Your task to perform on an android device: Search for "macbook pro 15 inch" on bestbuy, select the first entry, add it to the cart, then select checkout. Image 0: 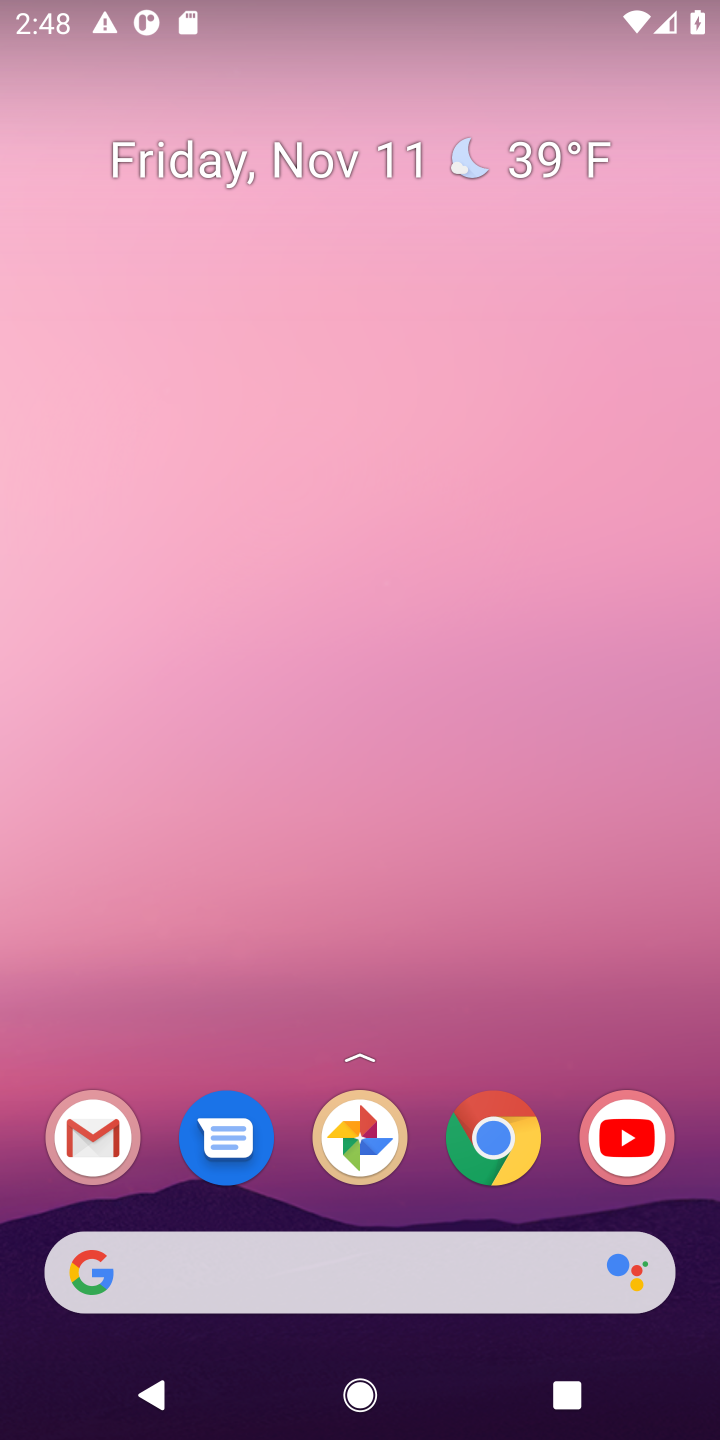
Step 0: click (493, 1144)
Your task to perform on an android device: Search for "macbook pro 15 inch" on bestbuy, select the first entry, add it to the cart, then select checkout. Image 1: 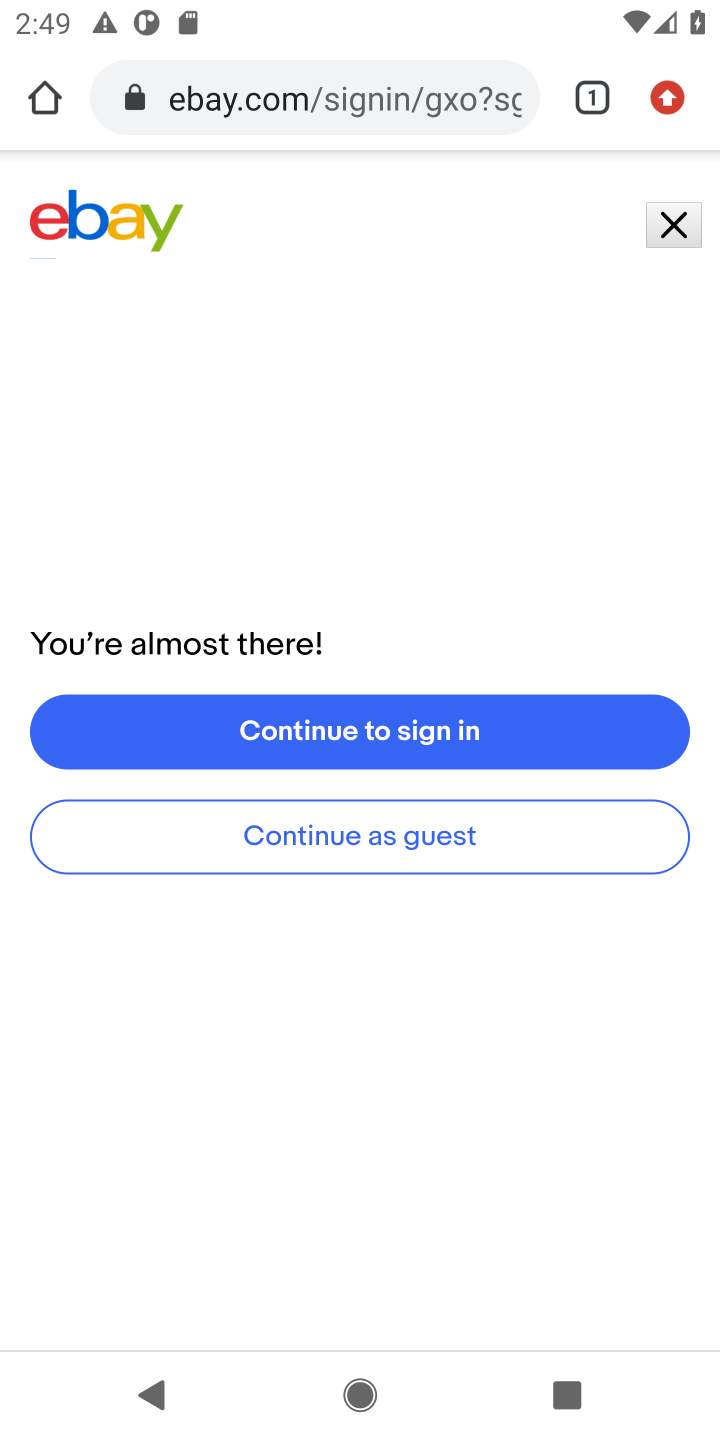
Step 1: click (444, 94)
Your task to perform on an android device: Search for "macbook pro 15 inch" on bestbuy, select the first entry, add it to the cart, then select checkout. Image 2: 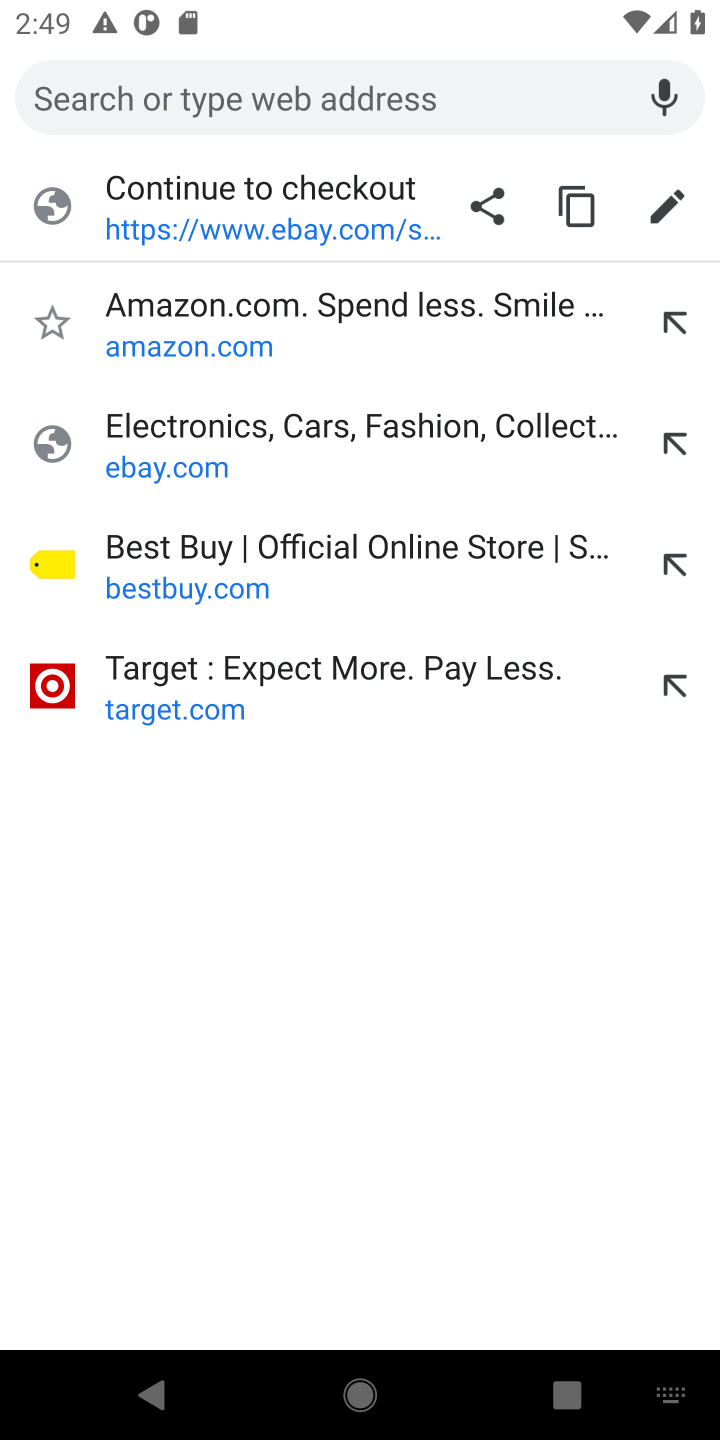
Step 2: click (399, 553)
Your task to perform on an android device: Search for "macbook pro 15 inch" on bestbuy, select the first entry, add it to the cart, then select checkout. Image 3: 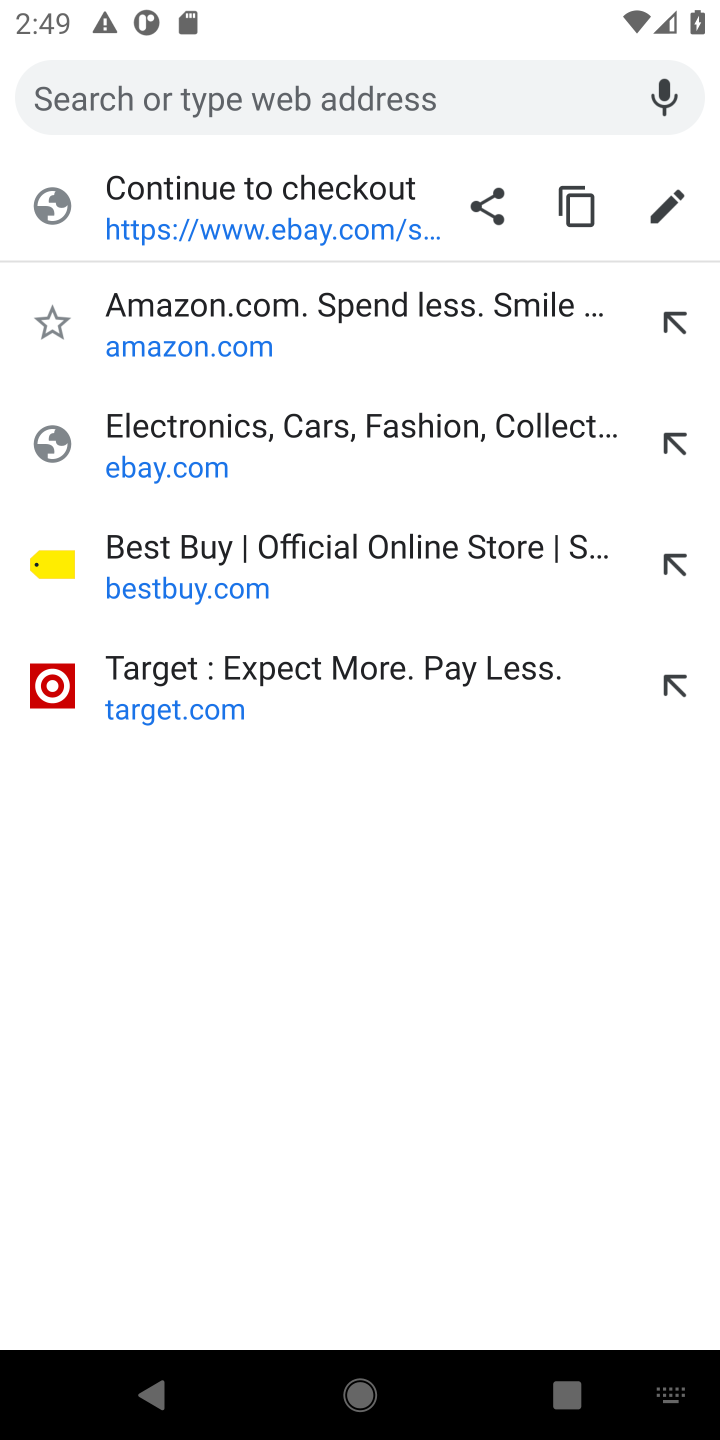
Step 3: type "macbook pro 15 inch"
Your task to perform on an android device: Search for "macbook pro 15 inch" on bestbuy, select the first entry, add it to the cart, then select checkout. Image 4: 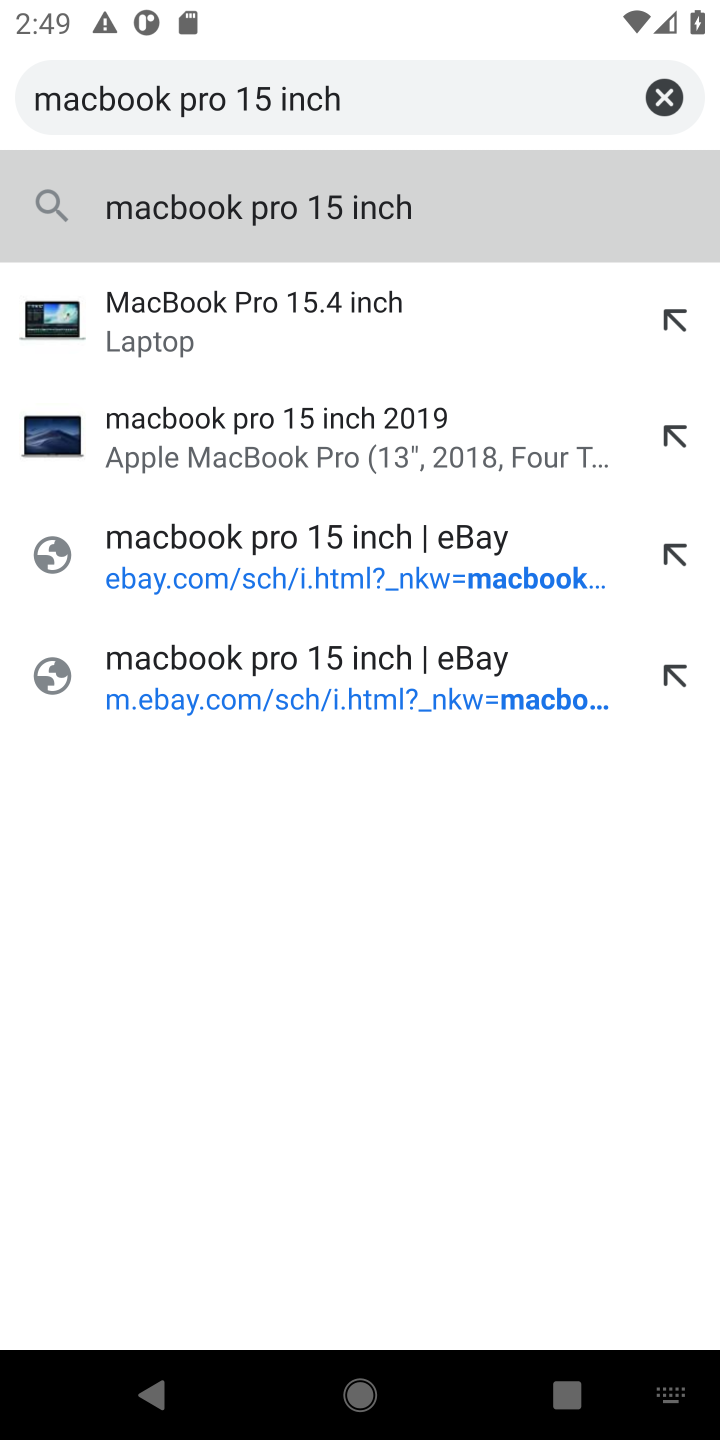
Step 4: press enter
Your task to perform on an android device: Search for "macbook pro 15 inch" on bestbuy, select the first entry, add it to the cart, then select checkout. Image 5: 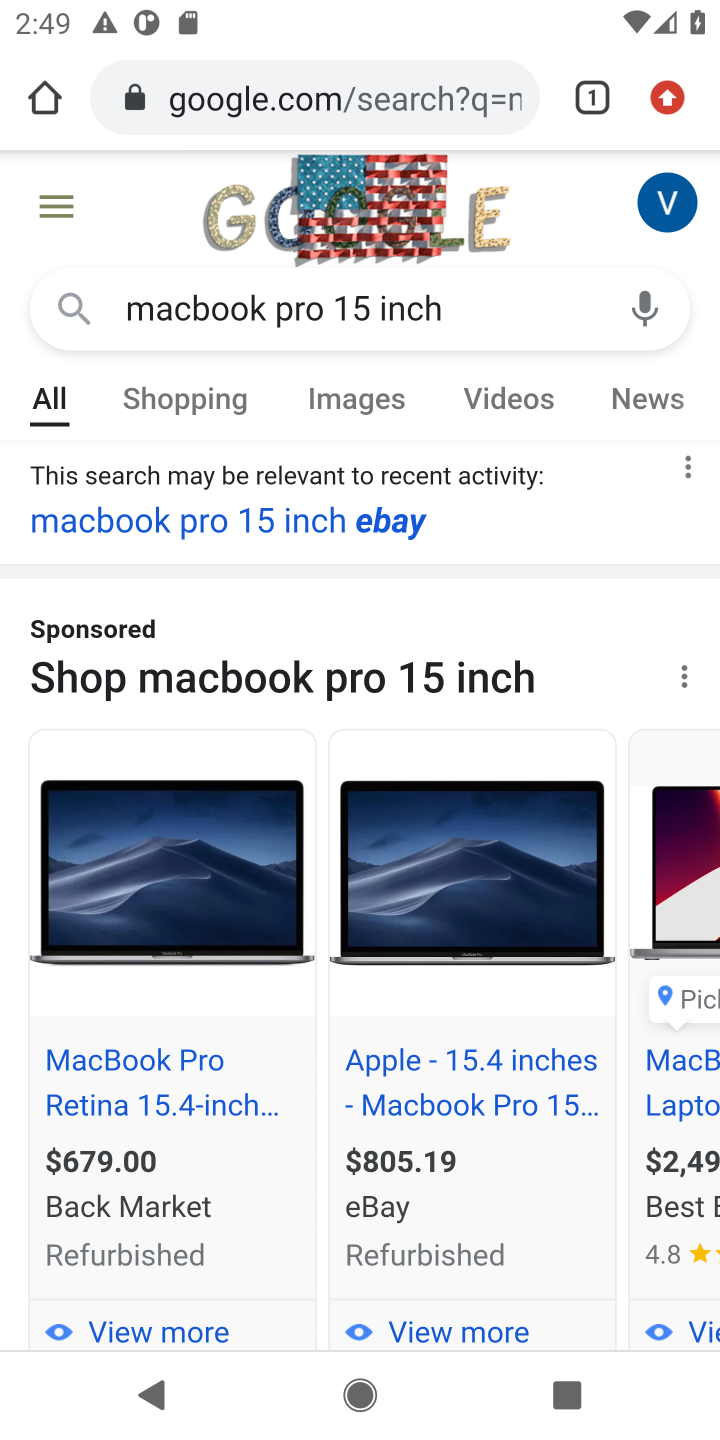
Step 5: click (663, 1204)
Your task to perform on an android device: Search for "macbook pro 15 inch" on bestbuy, select the first entry, add it to the cart, then select checkout. Image 6: 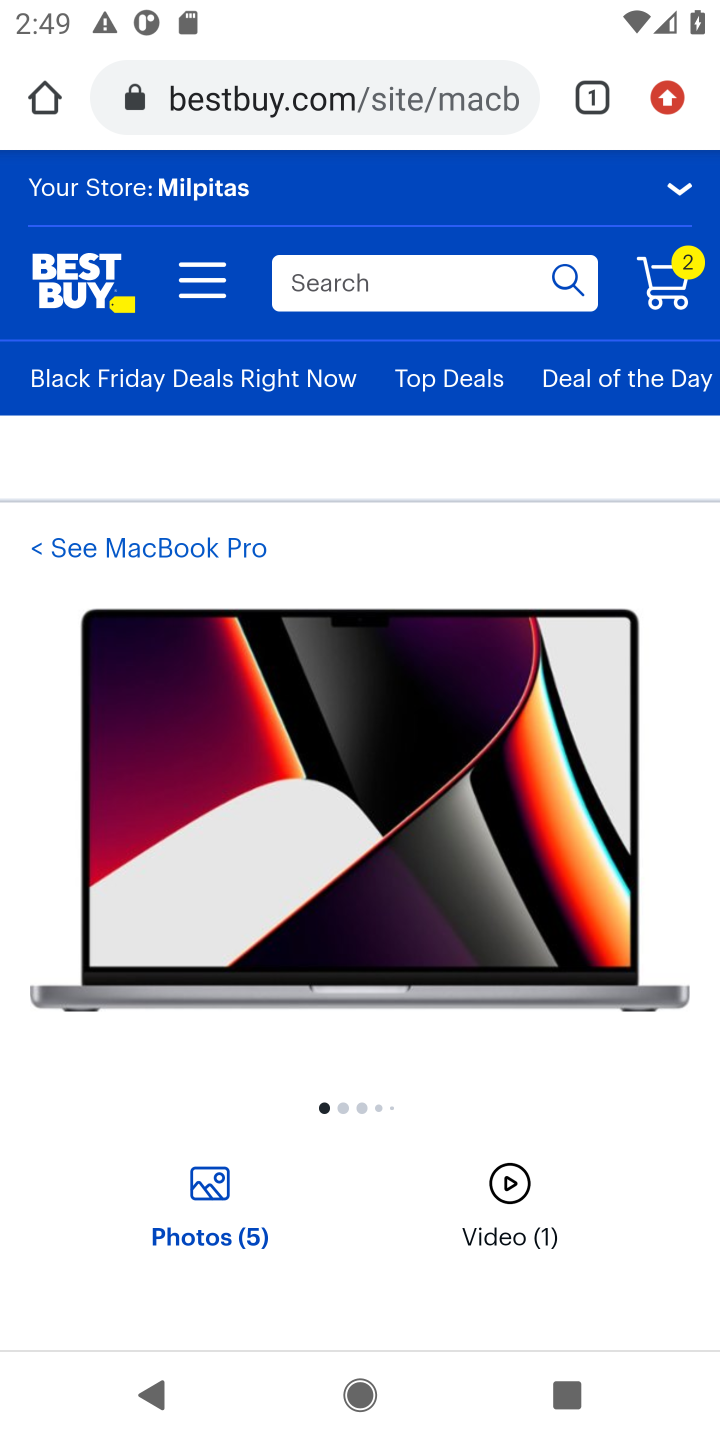
Step 6: drag from (518, 1047) to (590, 511)
Your task to perform on an android device: Search for "macbook pro 15 inch" on bestbuy, select the first entry, add it to the cart, then select checkout. Image 7: 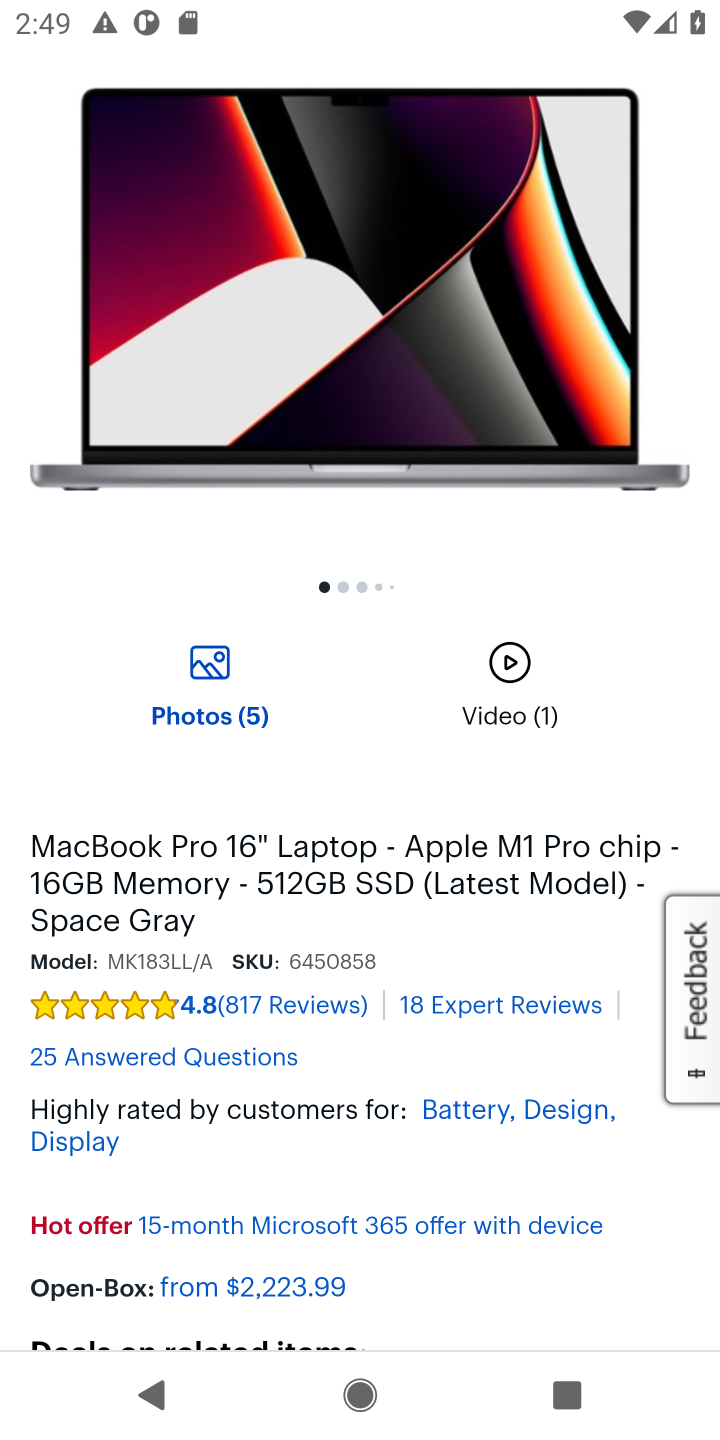
Step 7: drag from (540, 926) to (481, 287)
Your task to perform on an android device: Search for "macbook pro 15 inch" on bestbuy, select the first entry, add it to the cart, then select checkout. Image 8: 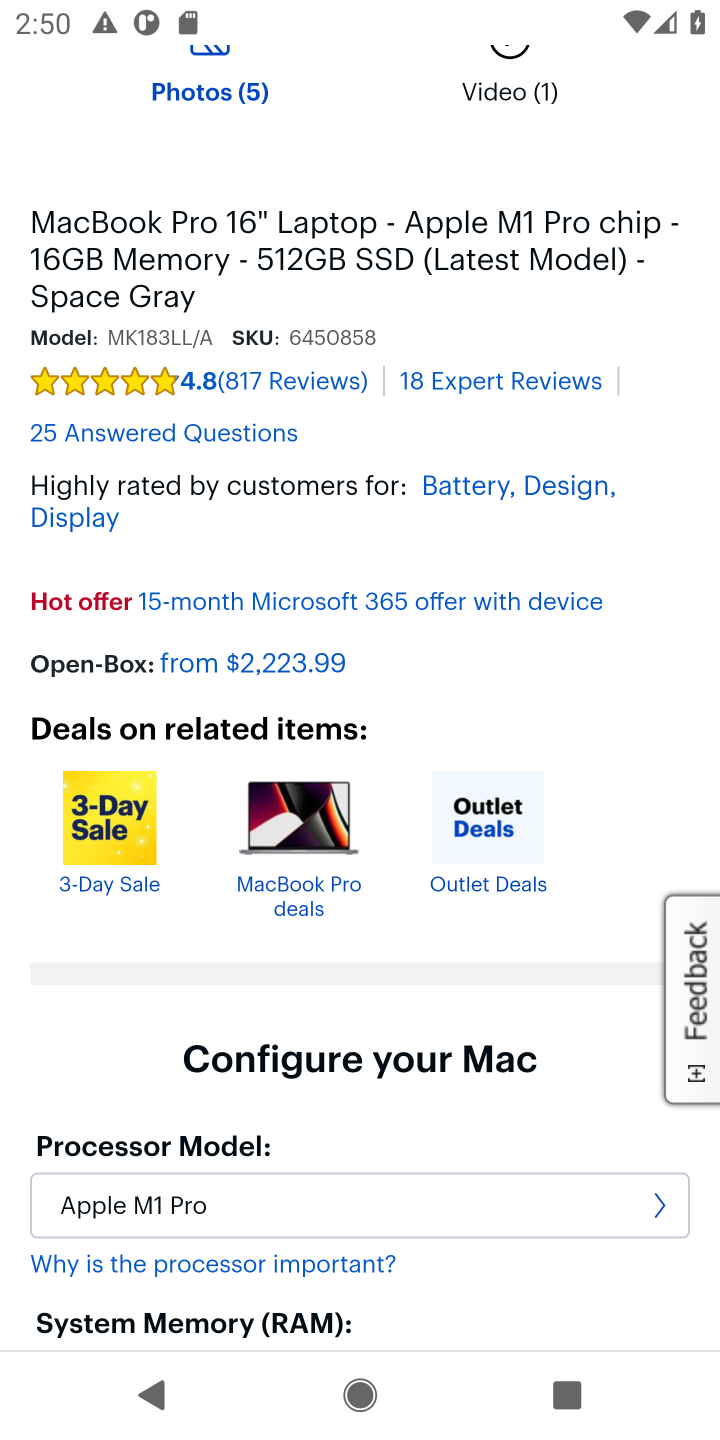
Step 8: drag from (470, 867) to (572, 1115)
Your task to perform on an android device: Search for "macbook pro 15 inch" on bestbuy, select the first entry, add it to the cart, then select checkout. Image 9: 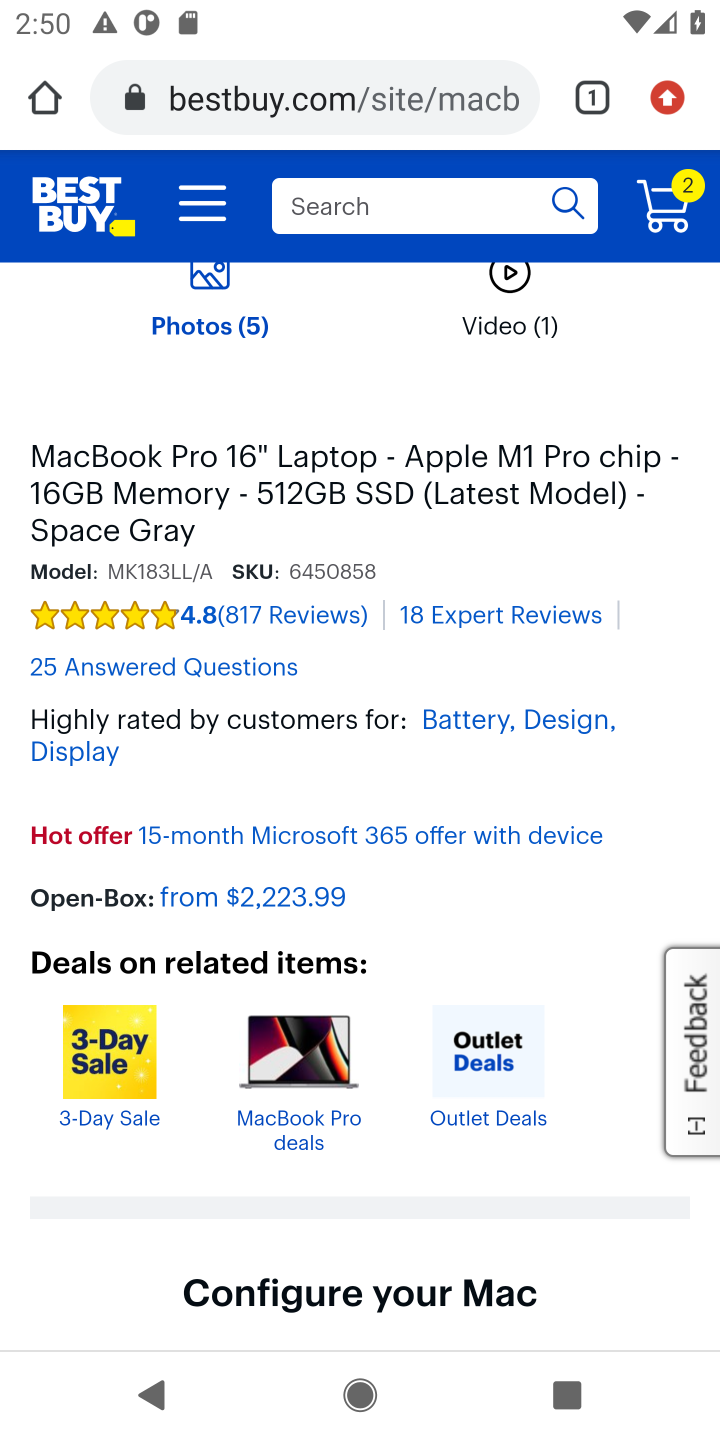
Step 9: drag from (343, 421) to (505, 1032)
Your task to perform on an android device: Search for "macbook pro 15 inch" on bestbuy, select the first entry, add it to the cart, then select checkout. Image 10: 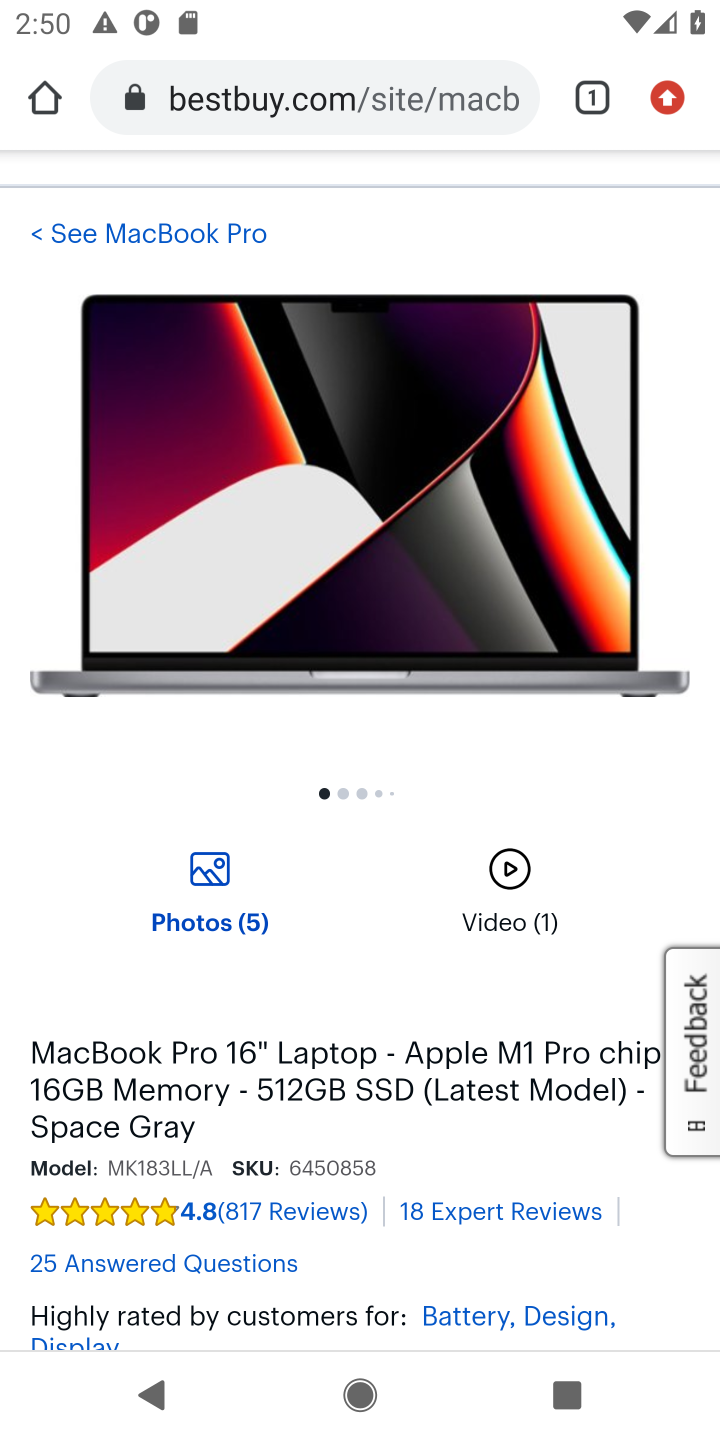
Step 10: drag from (589, 1194) to (618, 1300)
Your task to perform on an android device: Search for "macbook pro 15 inch" on bestbuy, select the first entry, add it to the cart, then select checkout. Image 11: 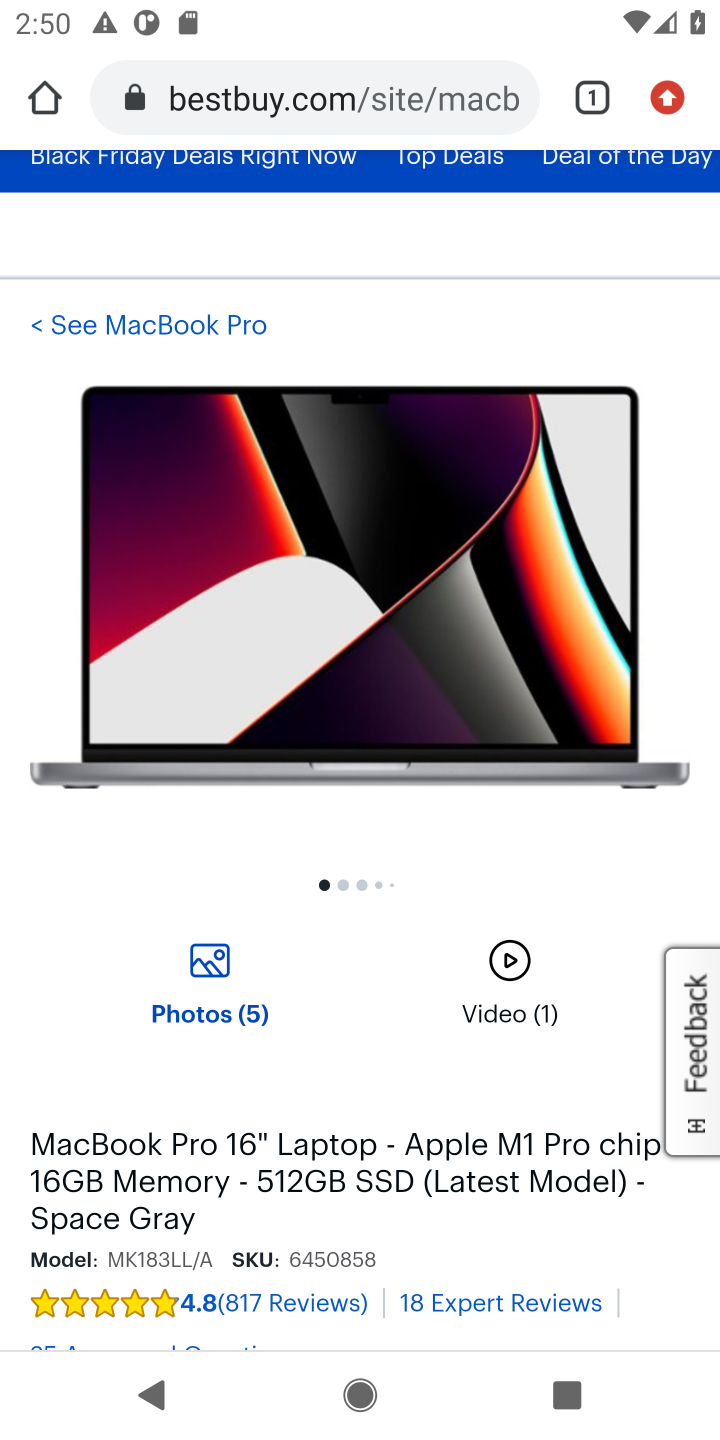
Step 11: click (501, 985)
Your task to perform on an android device: Search for "macbook pro 15 inch" on bestbuy, select the first entry, add it to the cart, then select checkout. Image 12: 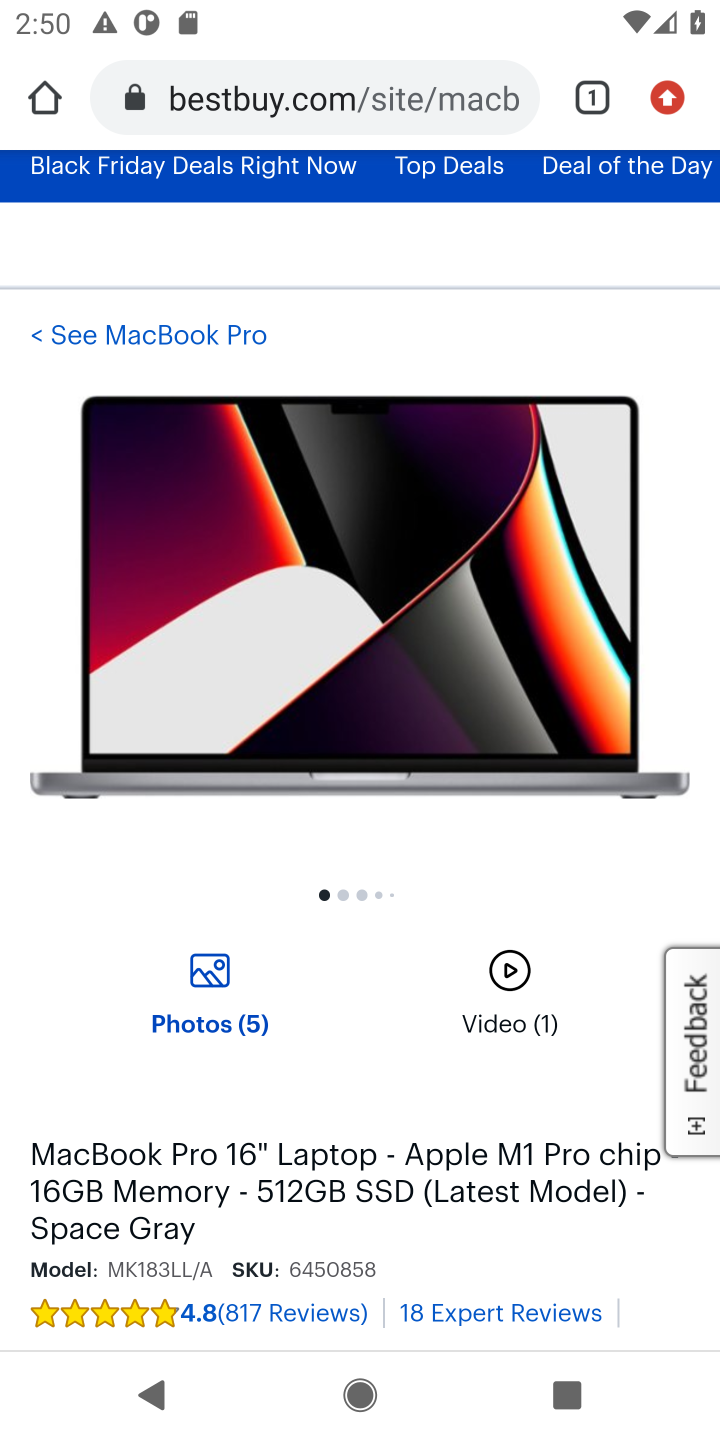
Step 12: drag from (414, 354) to (503, 912)
Your task to perform on an android device: Search for "macbook pro 15 inch" on bestbuy, select the first entry, add it to the cart, then select checkout. Image 13: 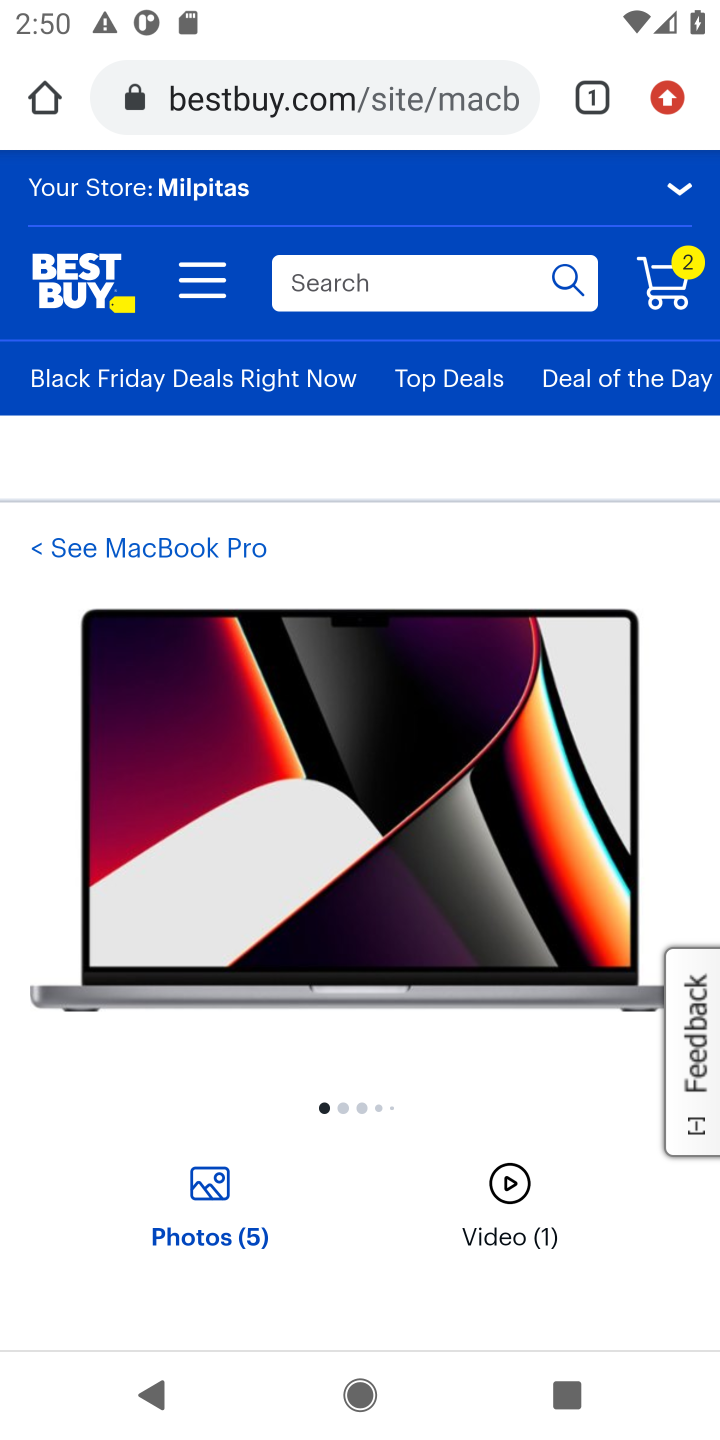
Step 13: click (464, 252)
Your task to perform on an android device: Search for "macbook pro 15 inch" on bestbuy, select the first entry, add it to the cart, then select checkout. Image 14: 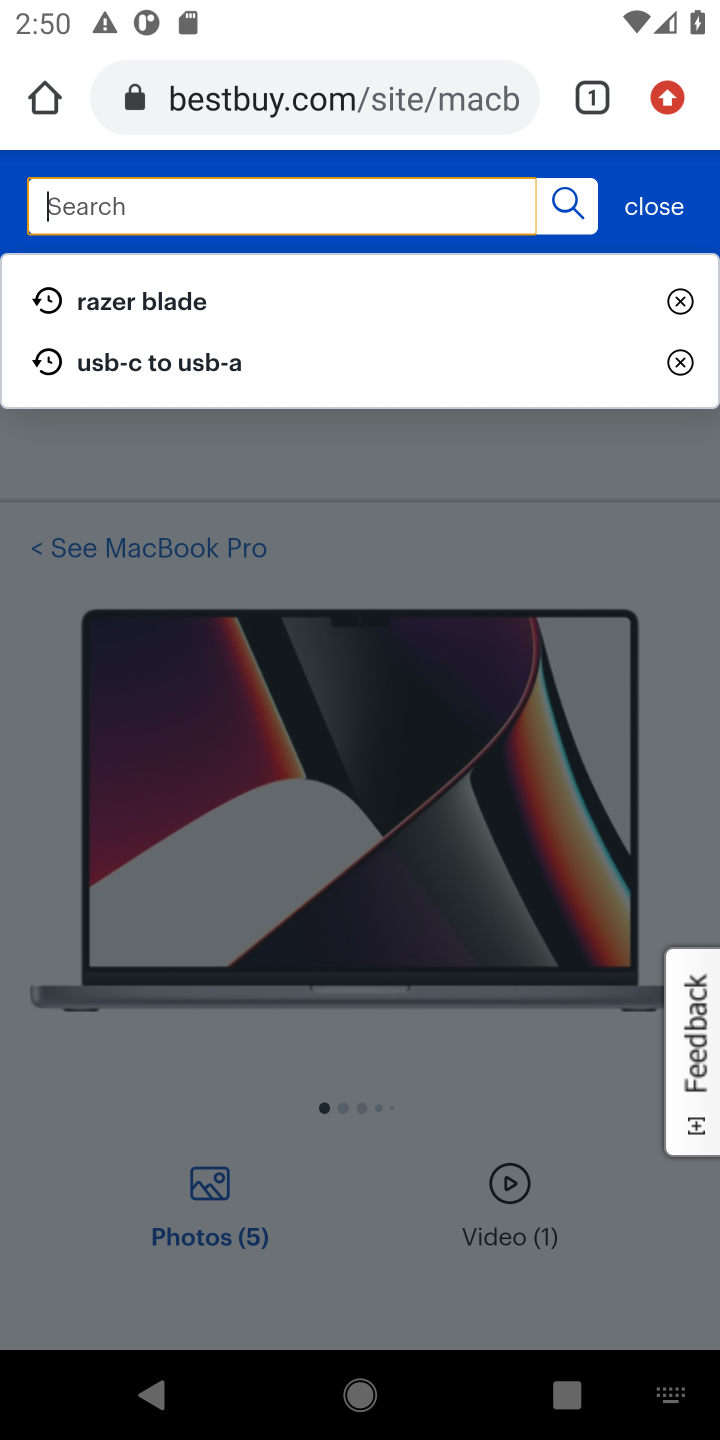
Step 14: press enter
Your task to perform on an android device: Search for "macbook pro 15 inch" on bestbuy, select the first entry, add it to the cart, then select checkout. Image 15: 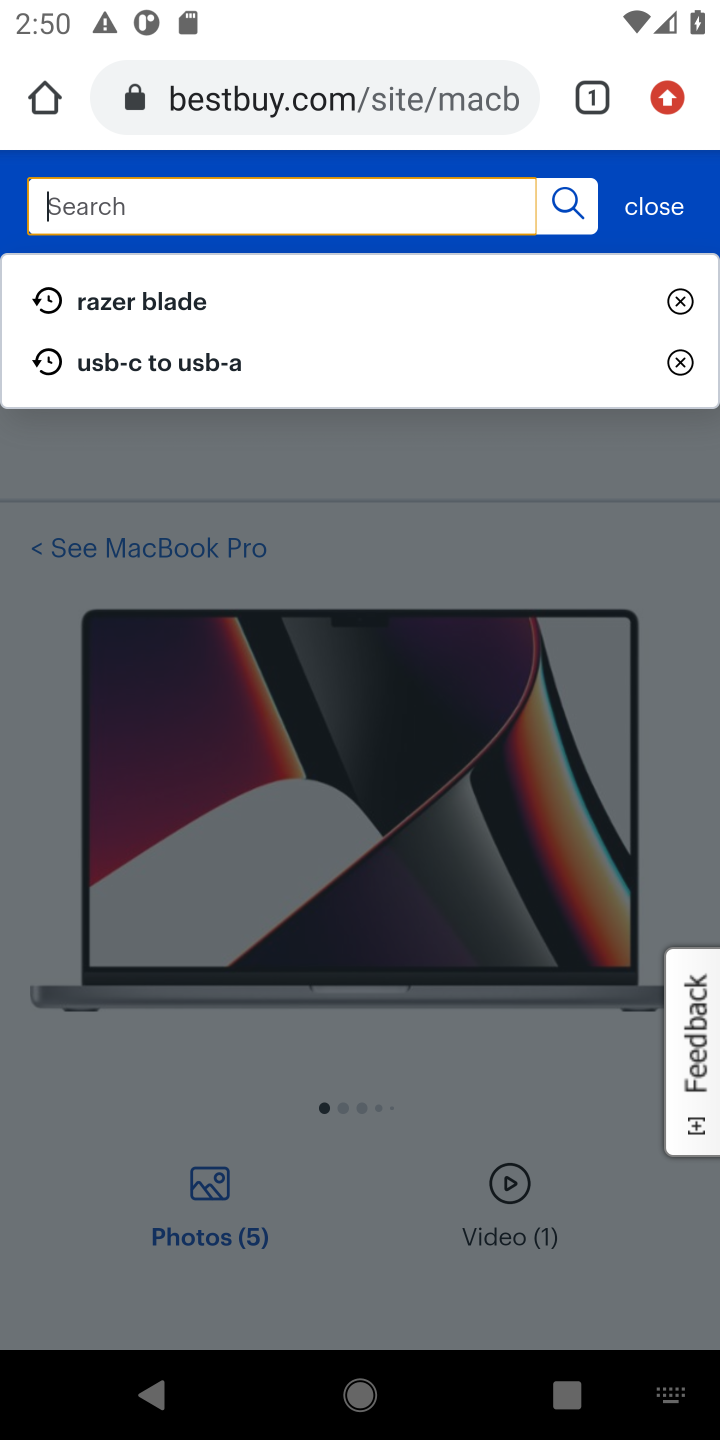
Step 15: type "macbook pro 15 inch"
Your task to perform on an android device: Search for "macbook pro 15 inch" on bestbuy, select the first entry, add it to the cart, then select checkout. Image 16: 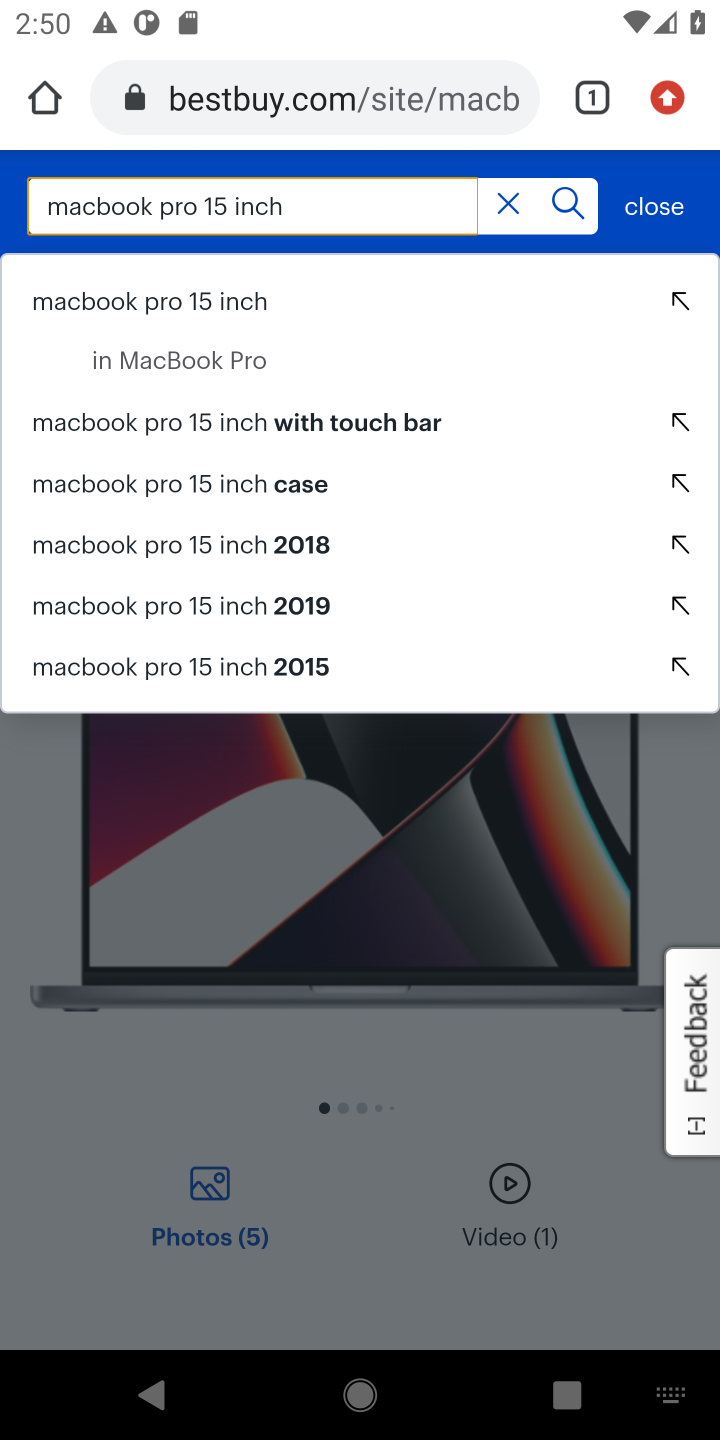
Step 16: click (226, 289)
Your task to perform on an android device: Search for "macbook pro 15 inch" on bestbuy, select the first entry, add it to the cart, then select checkout. Image 17: 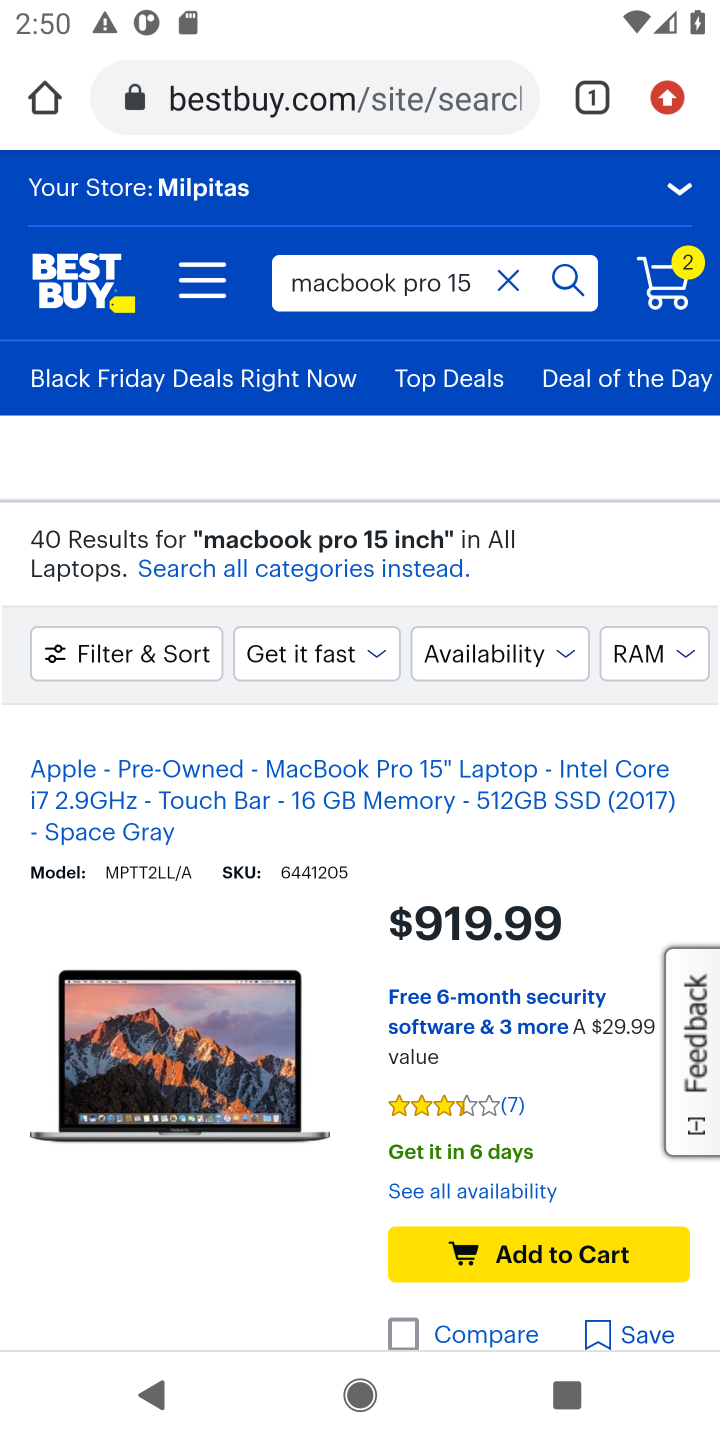
Step 17: click (167, 1022)
Your task to perform on an android device: Search for "macbook pro 15 inch" on bestbuy, select the first entry, add it to the cart, then select checkout. Image 18: 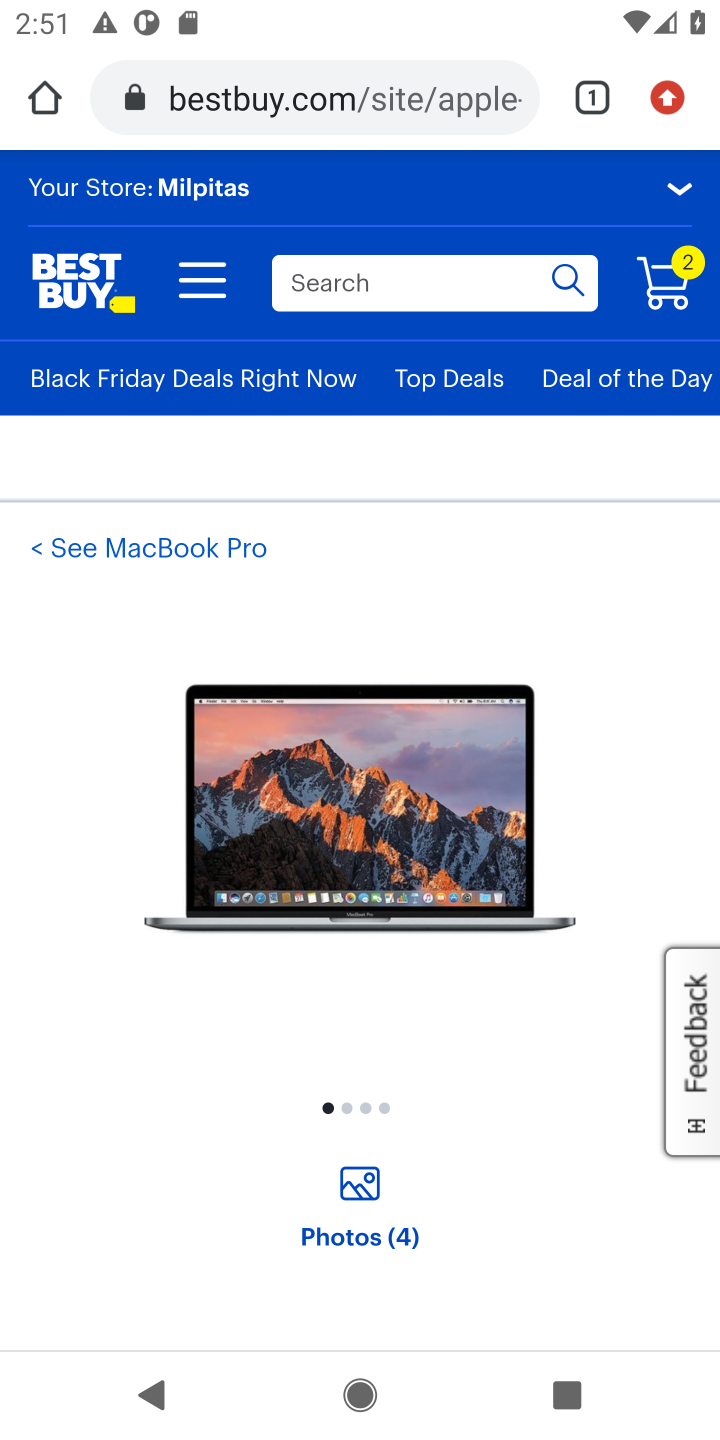
Step 18: drag from (602, 1243) to (439, 709)
Your task to perform on an android device: Search for "macbook pro 15 inch" on bestbuy, select the first entry, add it to the cart, then select checkout. Image 19: 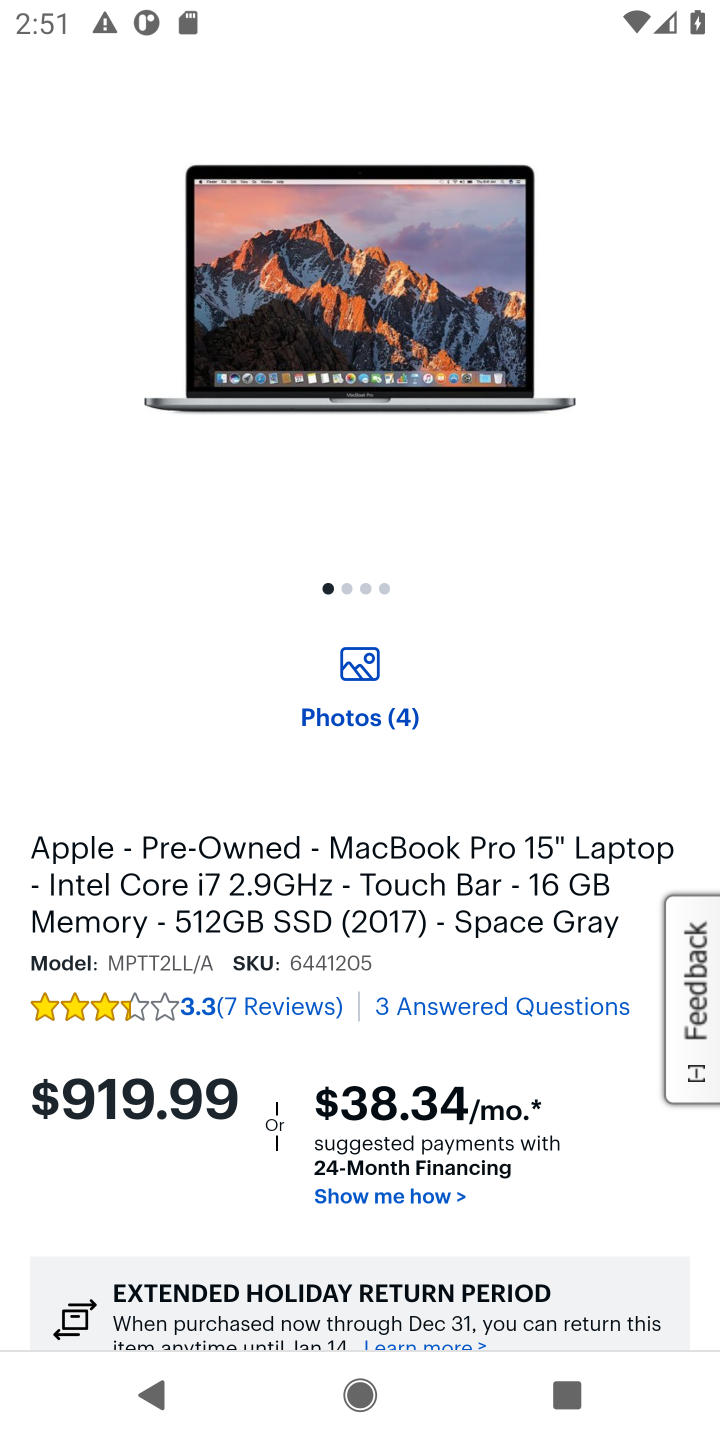
Step 19: drag from (648, 1217) to (318, 580)
Your task to perform on an android device: Search for "macbook pro 15 inch" on bestbuy, select the first entry, add it to the cart, then select checkout. Image 20: 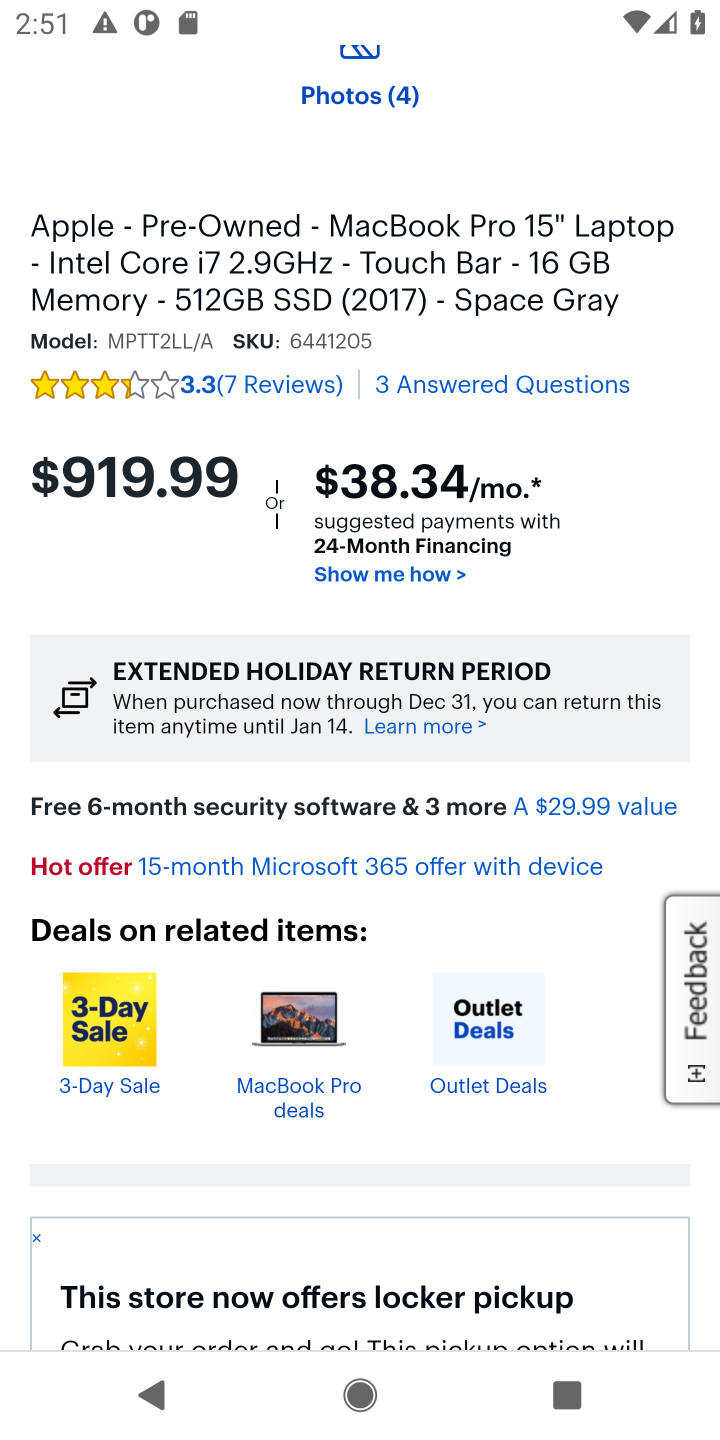
Step 20: drag from (612, 980) to (498, 506)
Your task to perform on an android device: Search for "macbook pro 15 inch" on bestbuy, select the first entry, add it to the cart, then select checkout. Image 21: 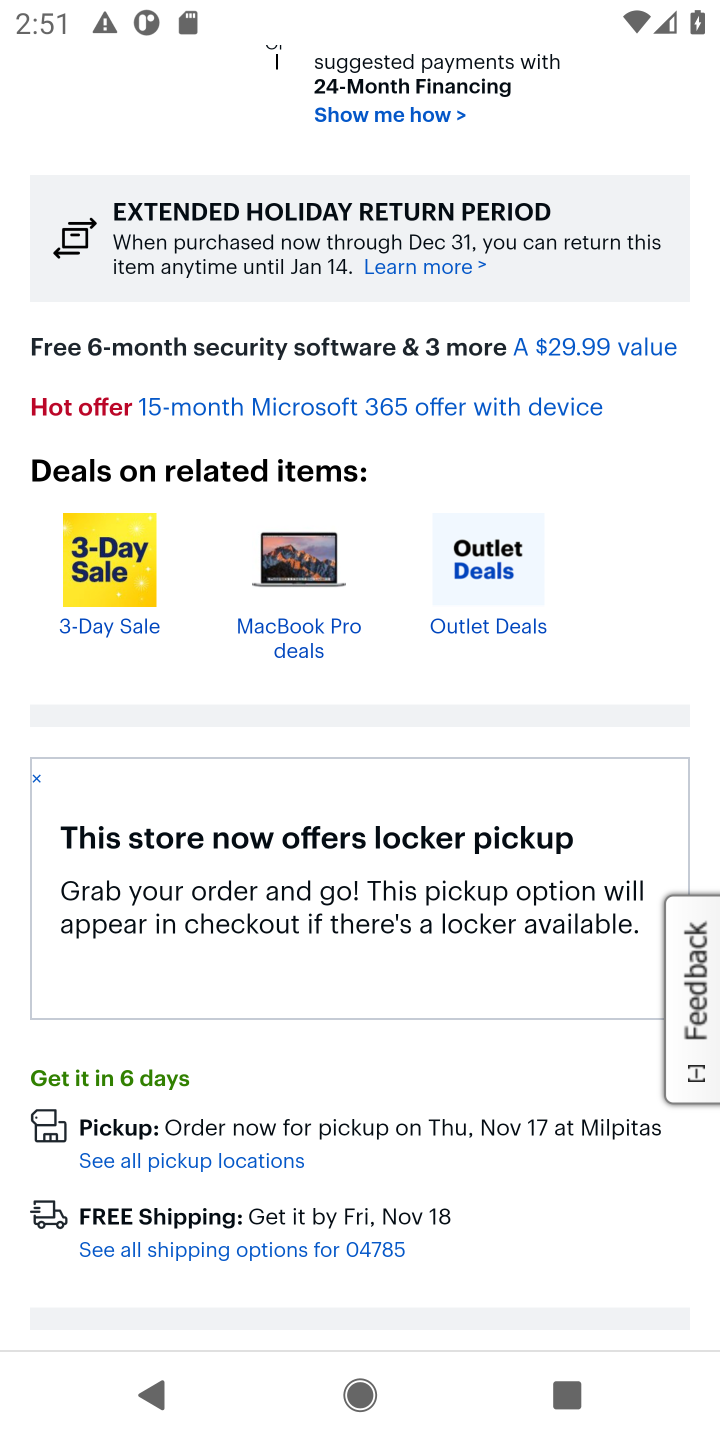
Step 21: drag from (614, 1242) to (502, 816)
Your task to perform on an android device: Search for "macbook pro 15 inch" on bestbuy, select the first entry, add it to the cart, then select checkout. Image 22: 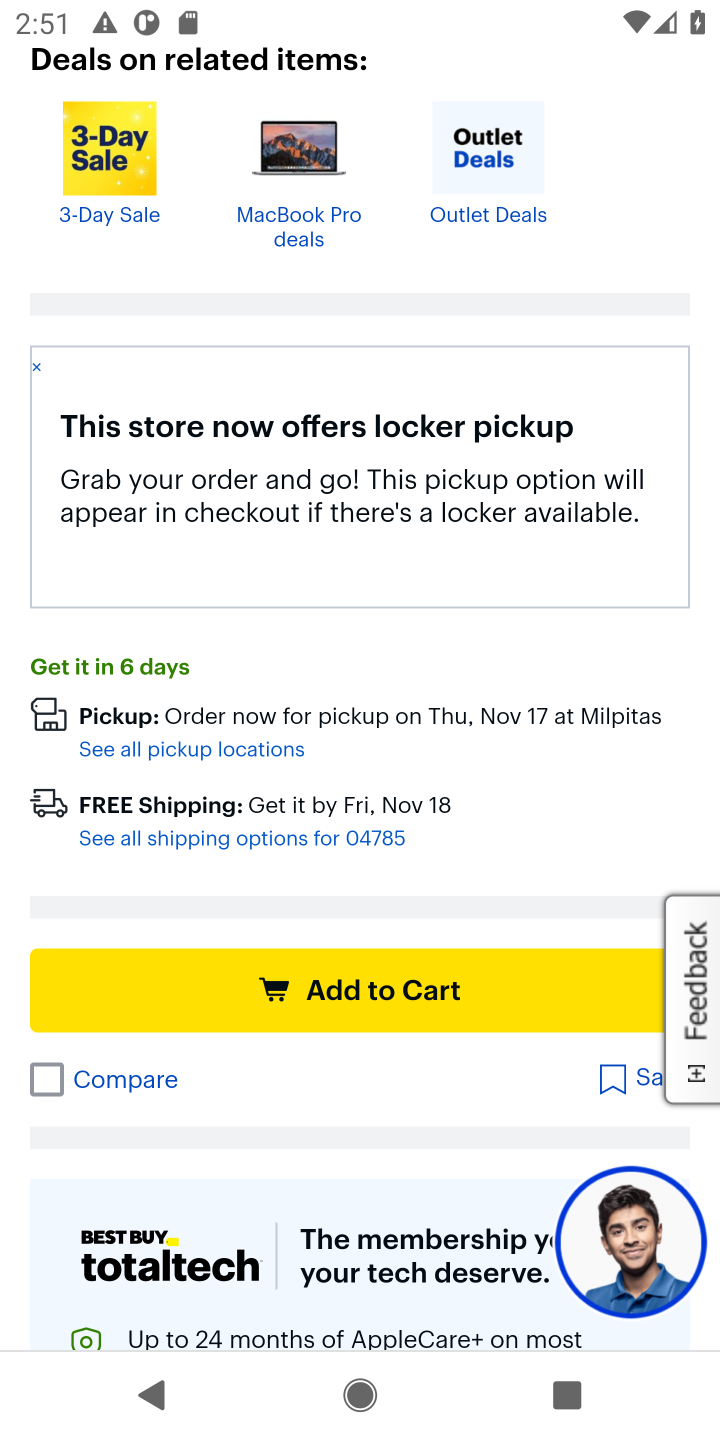
Step 22: click (479, 993)
Your task to perform on an android device: Search for "macbook pro 15 inch" on bestbuy, select the first entry, add it to the cart, then select checkout. Image 23: 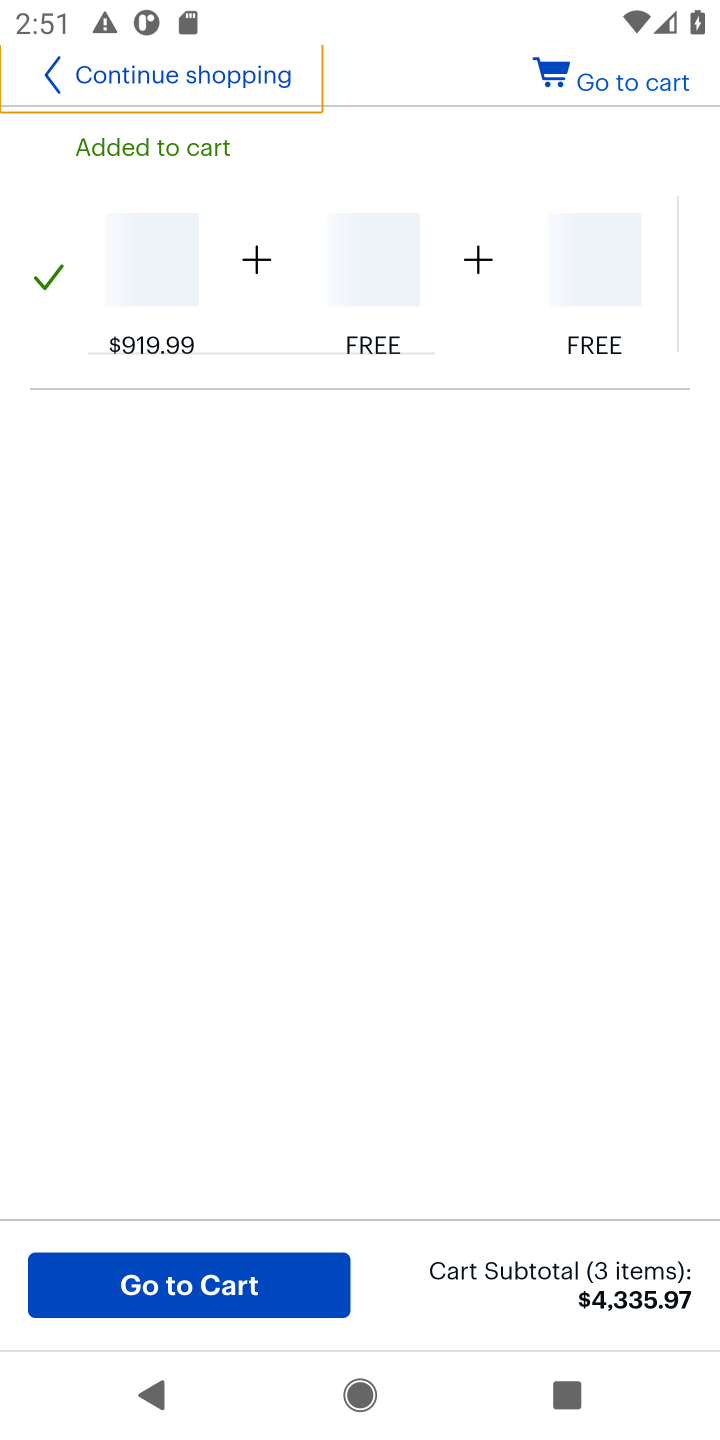
Step 23: click (242, 1292)
Your task to perform on an android device: Search for "macbook pro 15 inch" on bestbuy, select the first entry, add it to the cart, then select checkout. Image 24: 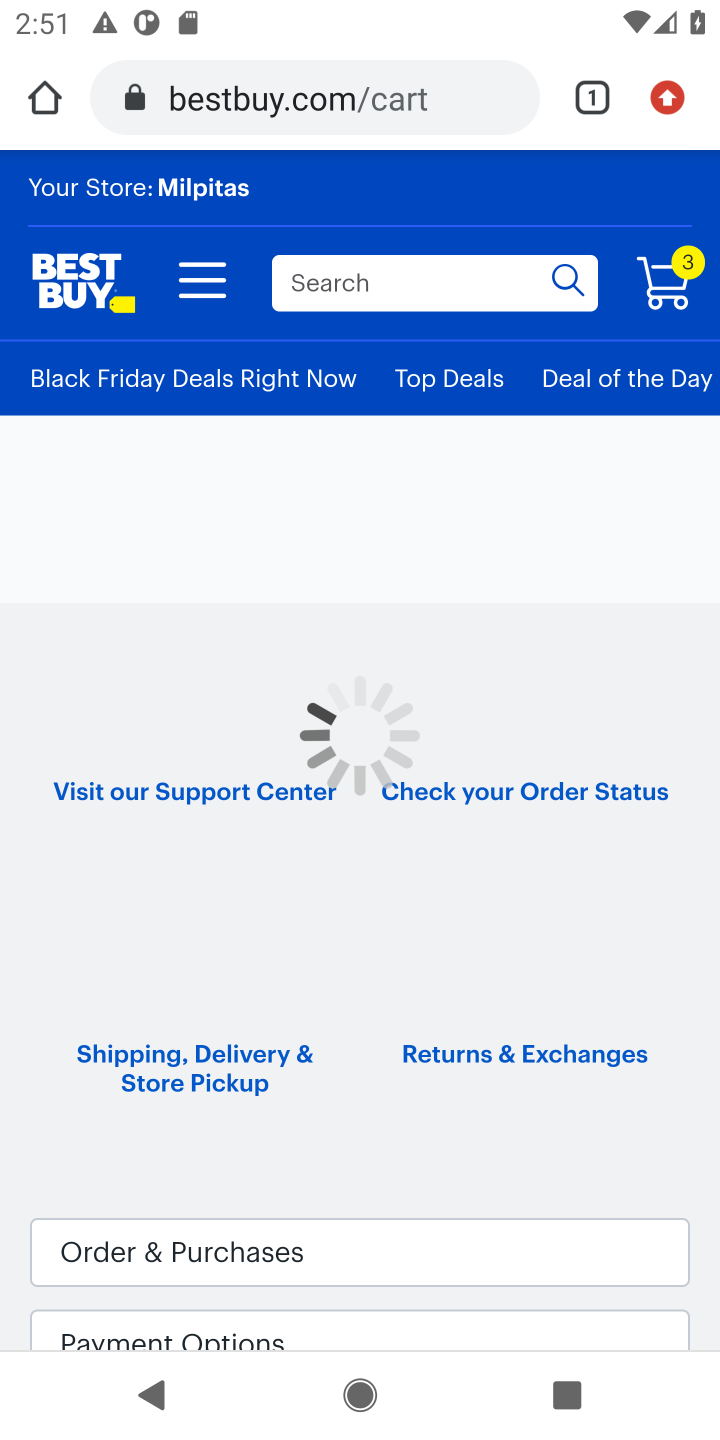
Step 24: task complete